Your task to perform on an android device: Open Google Chrome and click the shortcut for Amazon.com Image 0: 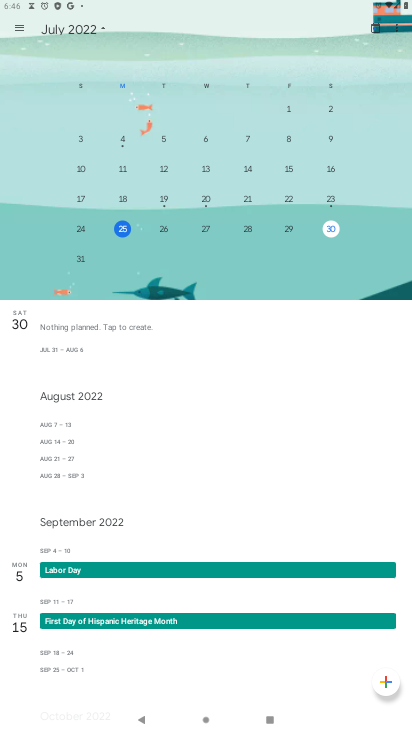
Step 0: press home button
Your task to perform on an android device: Open Google Chrome and click the shortcut for Amazon.com Image 1: 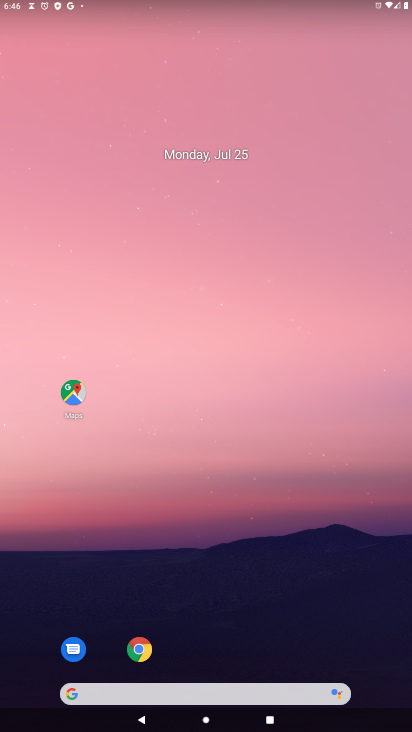
Step 1: drag from (192, 660) to (201, 133)
Your task to perform on an android device: Open Google Chrome and click the shortcut for Amazon.com Image 2: 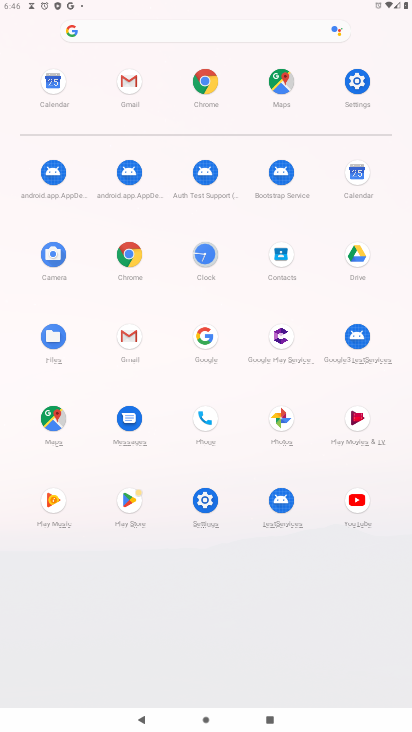
Step 2: click (126, 254)
Your task to perform on an android device: Open Google Chrome and click the shortcut for Amazon.com Image 3: 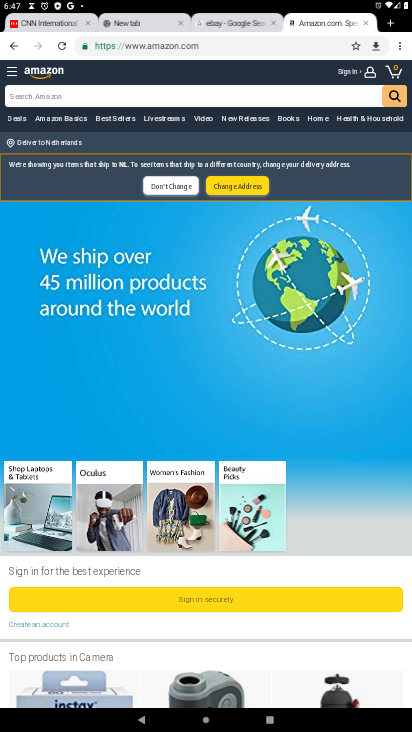
Step 3: drag from (402, 46) to (328, 259)
Your task to perform on an android device: Open Google Chrome and click the shortcut for Amazon.com Image 4: 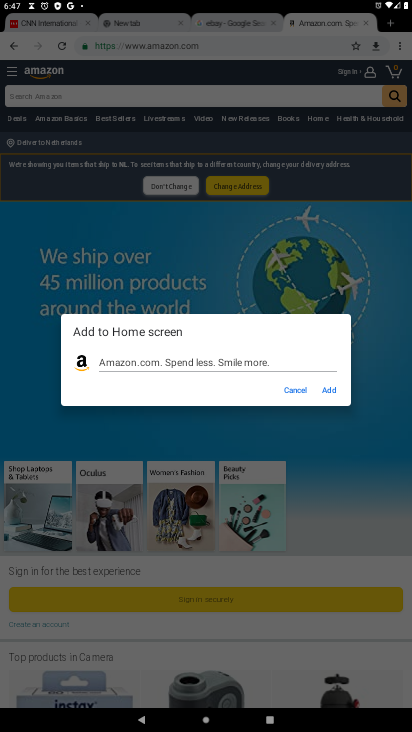
Step 4: click (325, 391)
Your task to perform on an android device: Open Google Chrome and click the shortcut for Amazon.com Image 5: 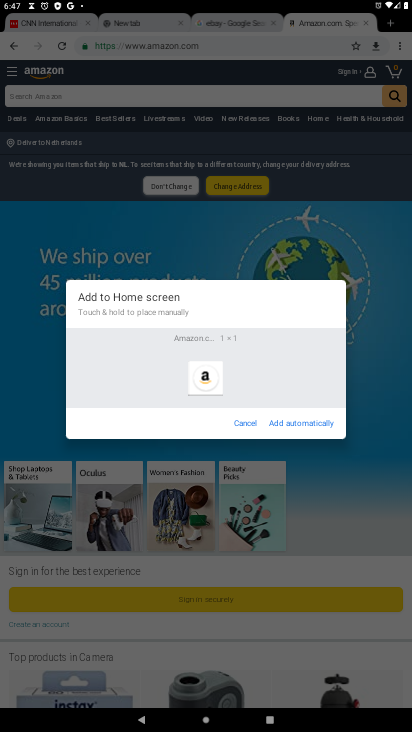
Step 5: click (287, 424)
Your task to perform on an android device: Open Google Chrome and click the shortcut for Amazon.com Image 6: 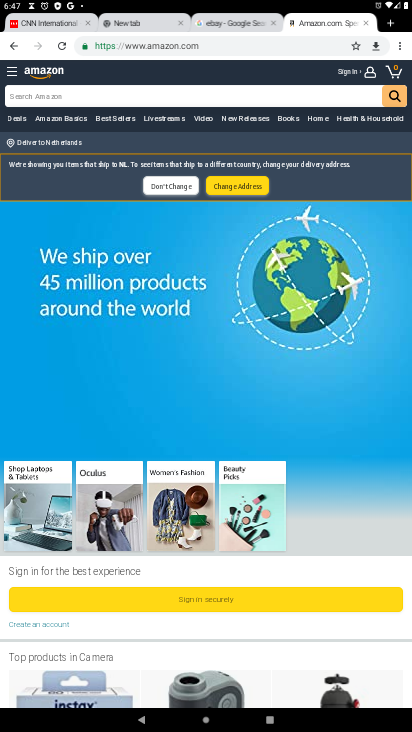
Step 6: task complete